Your task to perform on an android device: Open settings on Google Maps Image 0: 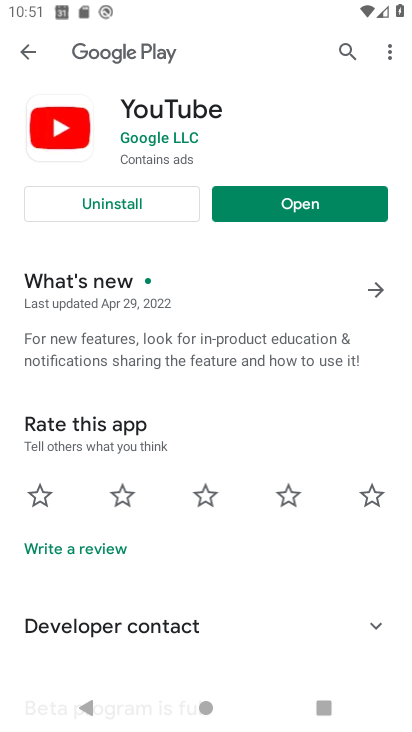
Step 0: press home button
Your task to perform on an android device: Open settings on Google Maps Image 1: 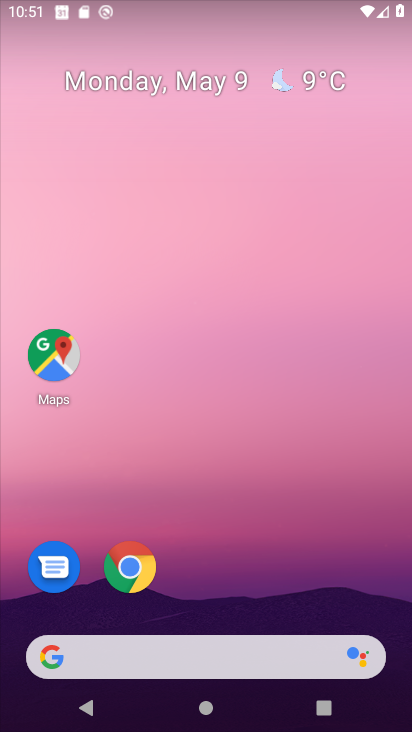
Step 1: click (53, 349)
Your task to perform on an android device: Open settings on Google Maps Image 2: 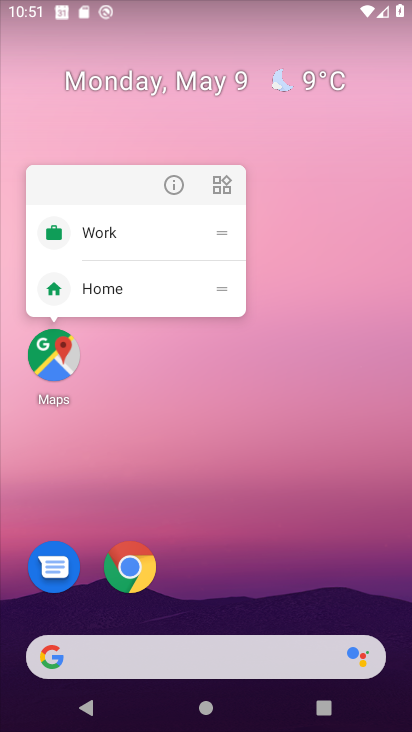
Step 2: click (52, 350)
Your task to perform on an android device: Open settings on Google Maps Image 3: 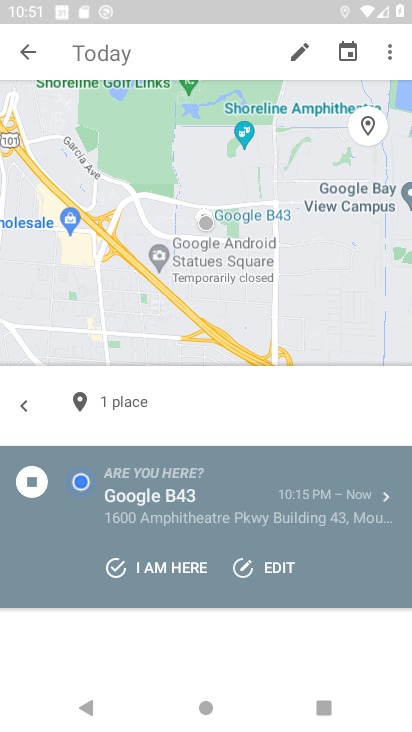
Step 3: click (30, 47)
Your task to perform on an android device: Open settings on Google Maps Image 4: 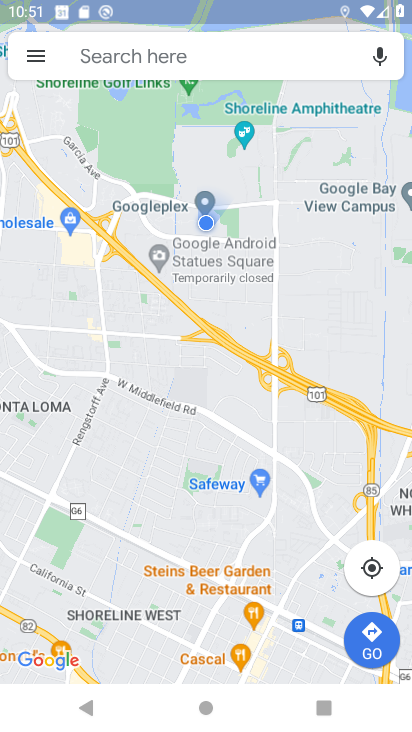
Step 4: click (34, 58)
Your task to perform on an android device: Open settings on Google Maps Image 5: 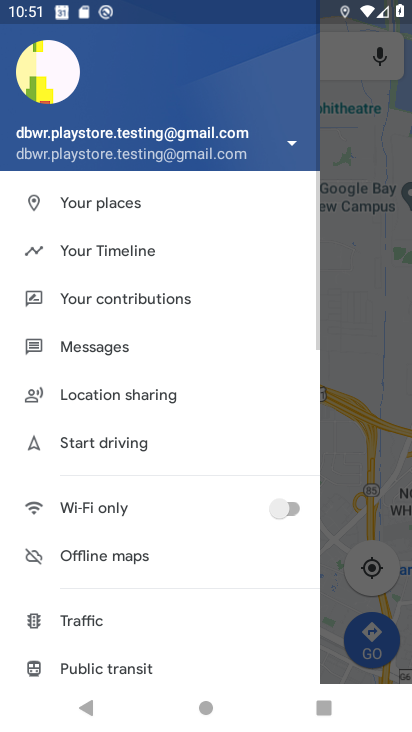
Step 5: drag from (131, 628) to (165, 119)
Your task to perform on an android device: Open settings on Google Maps Image 6: 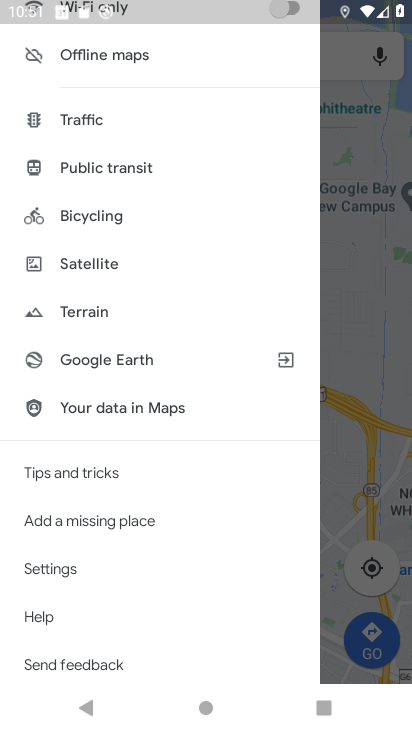
Step 6: click (86, 567)
Your task to perform on an android device: Open settings on Google Maps Image 7: 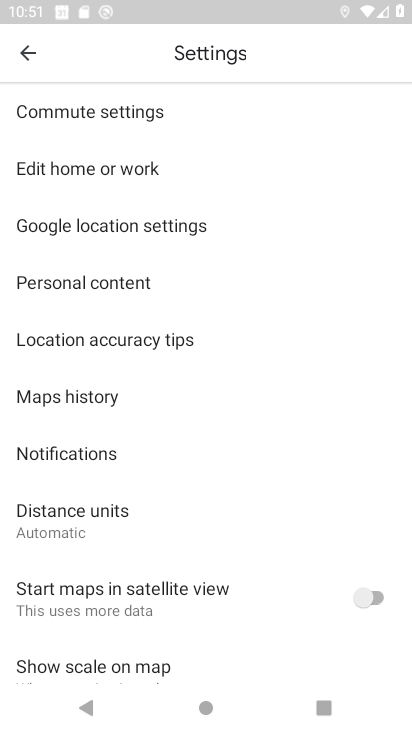
Step 7: task complete